Your task to perform on an android device: Clear the shopping cart on ebay. Add sony triple a to the cart on ebay Image 0: 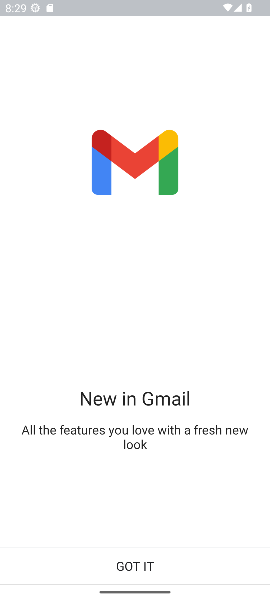
Step 0: press home button
Your task to perform on an android device: Clear the shopping cart on ebay. Add sony triple a to the cart on ebay Image 1: 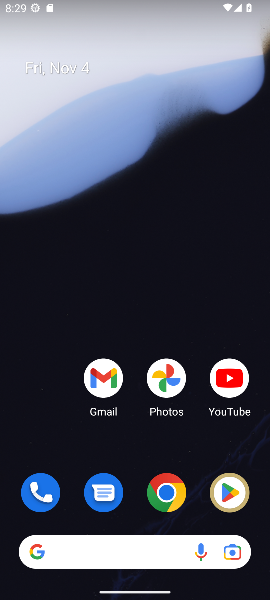
Step 1: drag from (134, 381) to (141, 8)
Your task to perform on an android device: Clear the shopping cart on ebay. Add sony triple a to the cart on ebay Image 2: 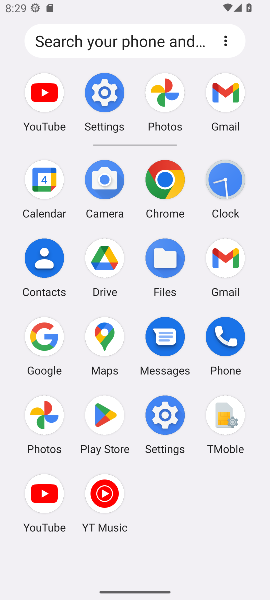
Step 2: click (162, 174)
Your task to perform on an android device: Clear the shopping cart on ebay. Add sony triple a to the cart on ebay Image 3: 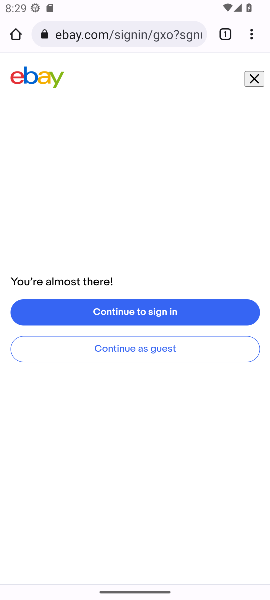
Step 3: click (116, 34)
Your task to perform on an android device: Clear the shopping cart on ebay. Add sony triple a to the cart on ebay Image 4: 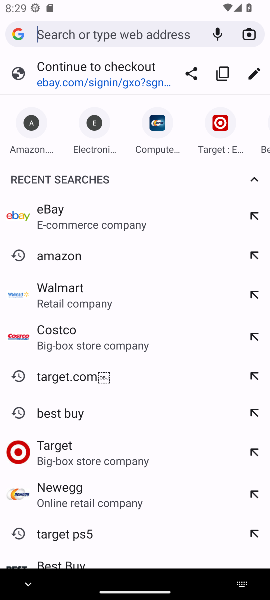
Step 4: type "ebay.com"
Your task to perform on an android device: Clear the shopping cart on ebay. Add sony triple a to the cart on ebay Image 5: 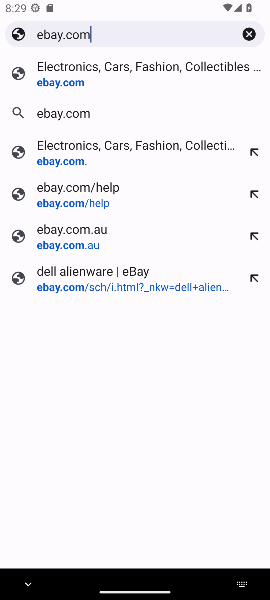
Step 5: press enter
Your task to perform on an android device: Clear the shopping cart on ebay. Add sony triple a to the cart on ebay Image 6: 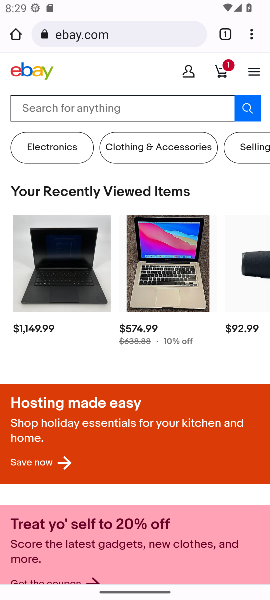
Step 6: click (226, 62)
Your task to perform on an android device: Clear the shopping cart on ebay. Add sony triple a to the cart on ebay Image 7: 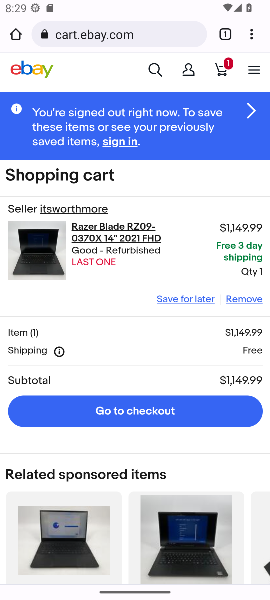
Step 7: click (237, 296)
Your task to perform on an android device: Clear the shopping cart on ebay. Add sony triple a to the cart on ebay Image 8: 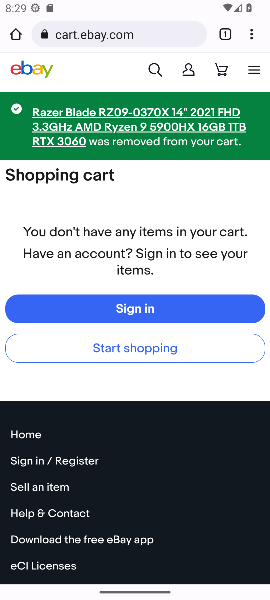
Step 8: click (155, 66)
Your task to perform on an android device: Clear the shopping cart on ebay. Add sony triple a to the cart on ebay Image 9: 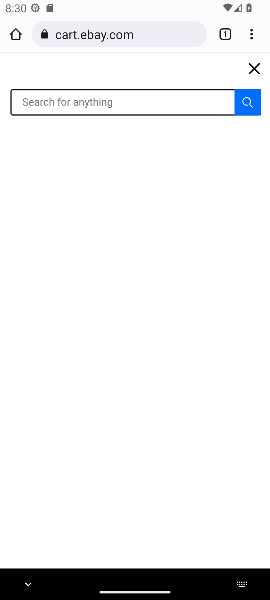
Step 9: type "sony triple a"
Your task to perform on an android device: Clear the shopping cart on ebay. Add sony triple a to the cart on ebay Image 10: 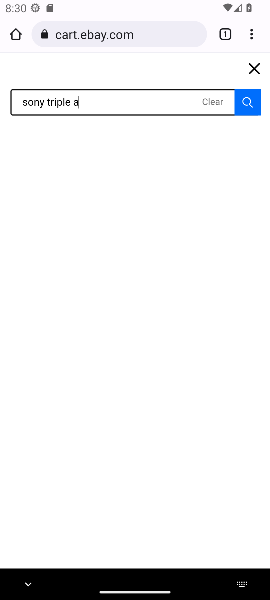
Step 10: press enter
Your task to perform on an android device: Clear the shopping cart on ebay. Add sony triple a to the cart on ebay Image 11: 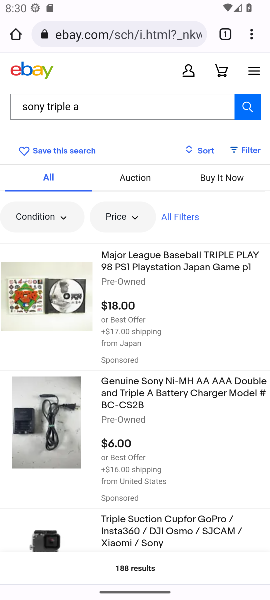
Step 11: task complete